Your task to perform on an android device: Open Yahoo.com Image 0: 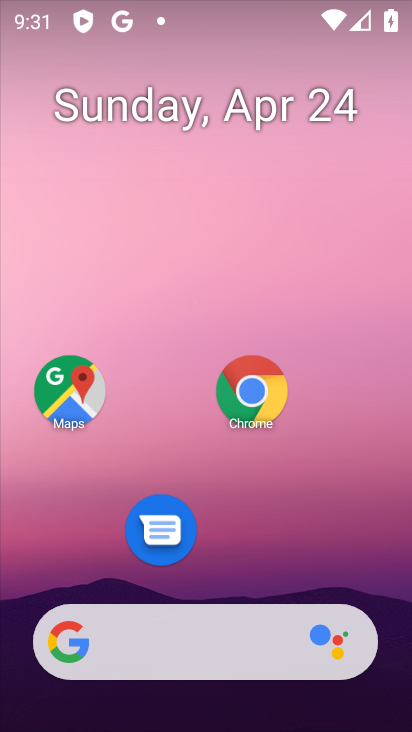
Step 0: click (251, 387)
Your task to perform on an android device: Open Yahoo.com Image 1: 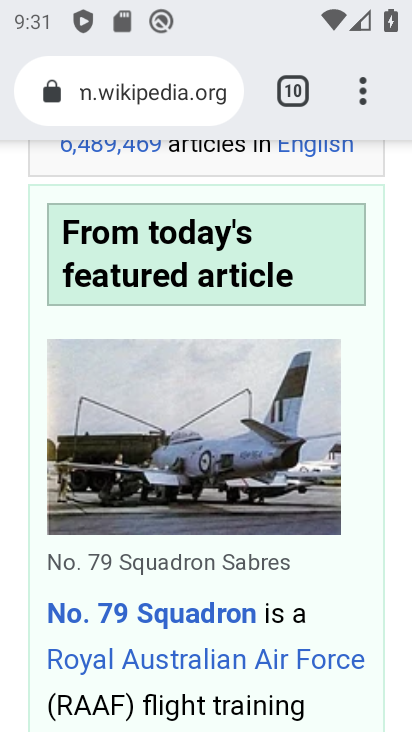
Step 1: click (287, 89)
Your task to perform on an android device: Open Yahoo.com Image 2: 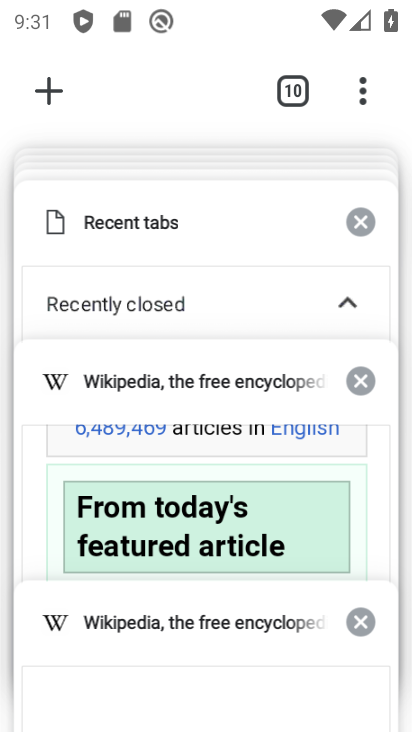
Step 2: click (39, 97)
Your task to perform on an android device: Open Yahoo.com Image 3: 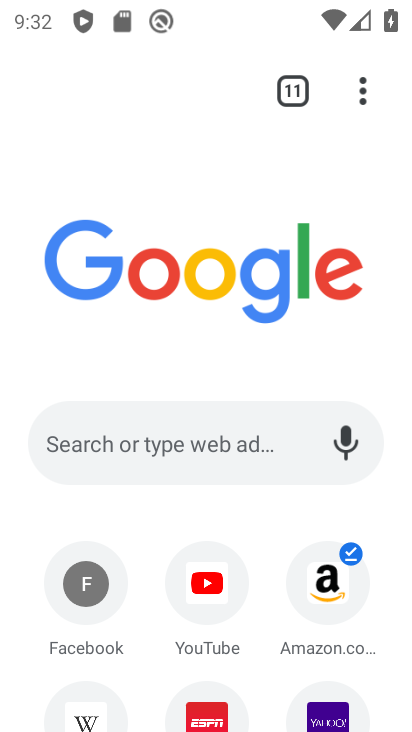
Step 3: click (326, 695)
Your task to perform on an android device: Open Yahoo.com Image 4: 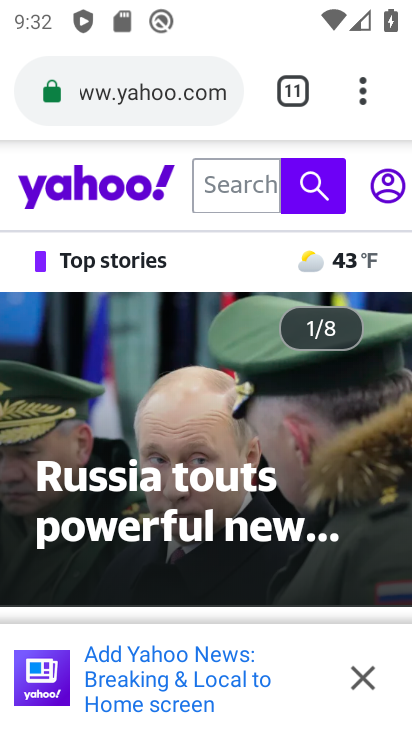
Step 4: task complete